Your task to perform on an android device: open the mobile data screen to see how much data has been used Image 0: 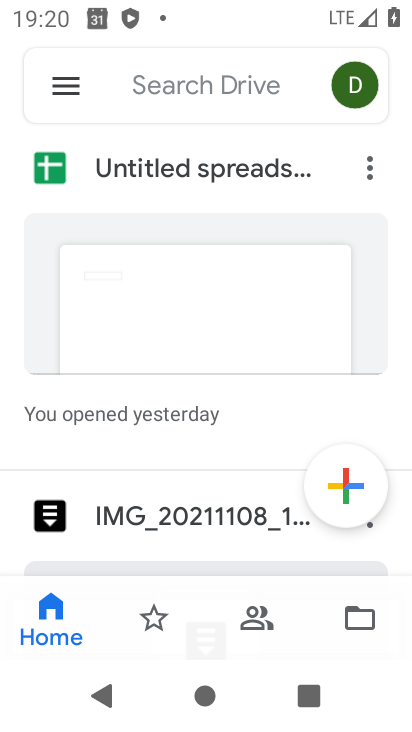
Step 0: press home button
Your task to perform on an android device: open the mobile data screen to see how much data has been used Image 1: 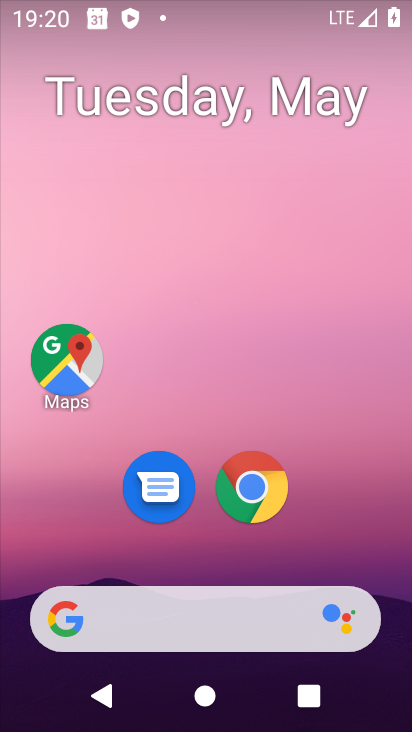
Step 1: drag from (349, 513) to (243, 99)
Your task to perform on an android device: open the mobile data screen to see how much data has been used Image 2: 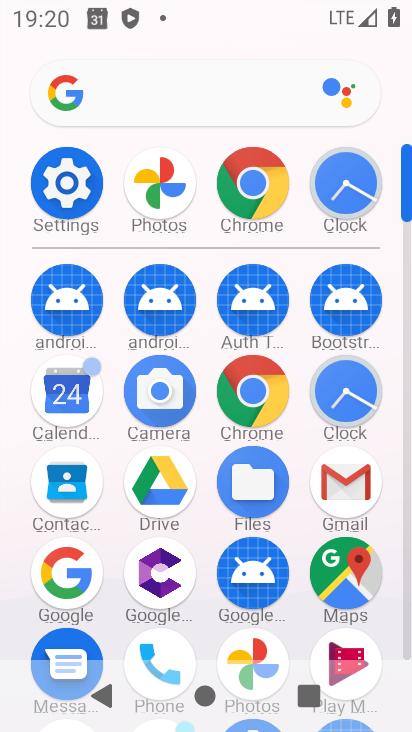
Step 2: click (65, 179)
Your task to perform on an android device: open the mobile data screen to see how much data has been used Image 3: 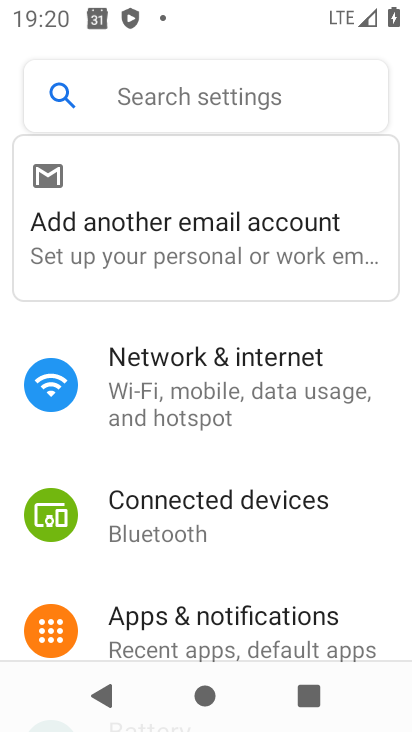
Step 3: click (231, 365)
Your task to perform on an android device: open the mobile data screen to see how much data has been used Image 4: 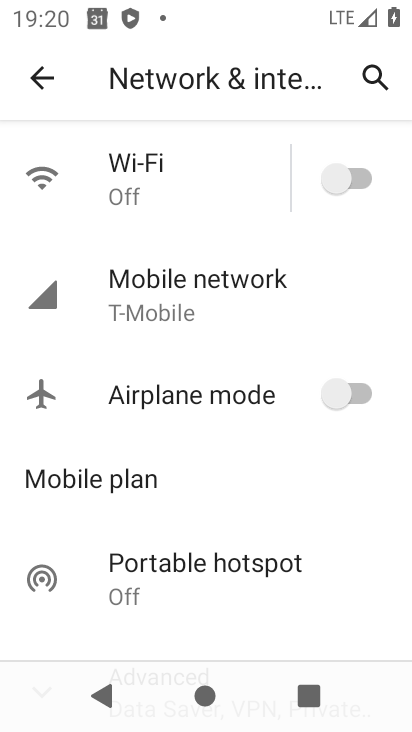
Step 4: click (185, 281)
Your task to perform on an android device: open the mobile data screen to see how much data has been used Image 5: 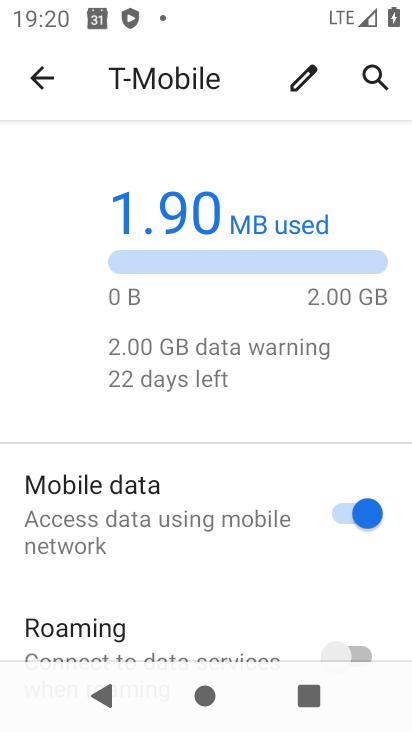
Step 5: task complete